Your task to perform on an android device: toggle data saver in the chrome app Image 0: 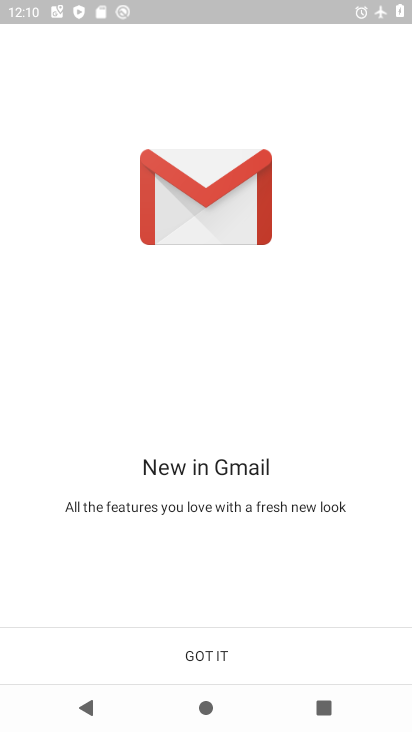
Step 0: press home button
Your task to perform on an android device: toggle data saver in the chrome app Image 1: 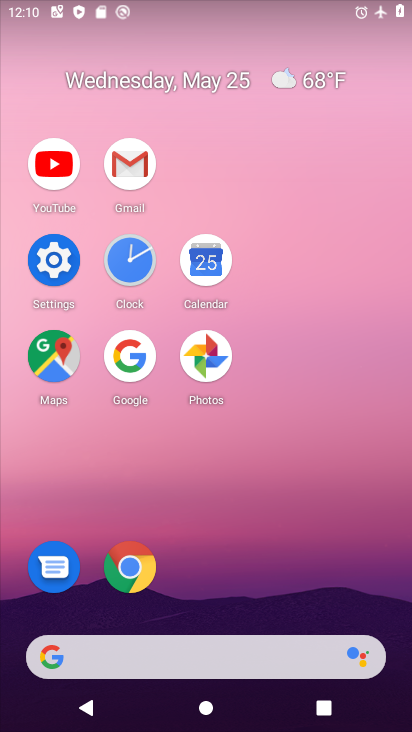
Step 1: click (145, 569)
Your task to perform on an android device: toggle data saver in the chrome app Image 2: 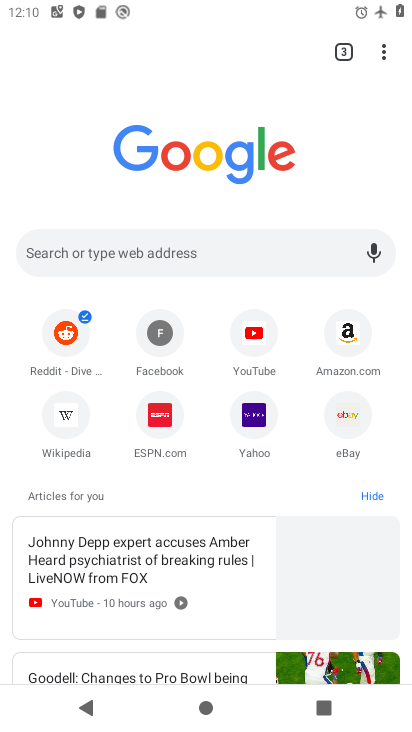
Step 2: click (373, 61)
Your task to perform on an android device: toggle data saver in the chrome app Image 3: 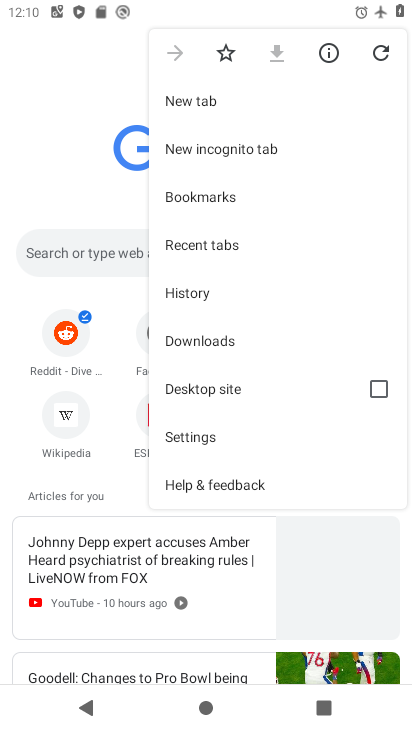
Step 3: click (216, 440)
Your task to perform on an android device: toggle data saver in the chrome app Image 4: 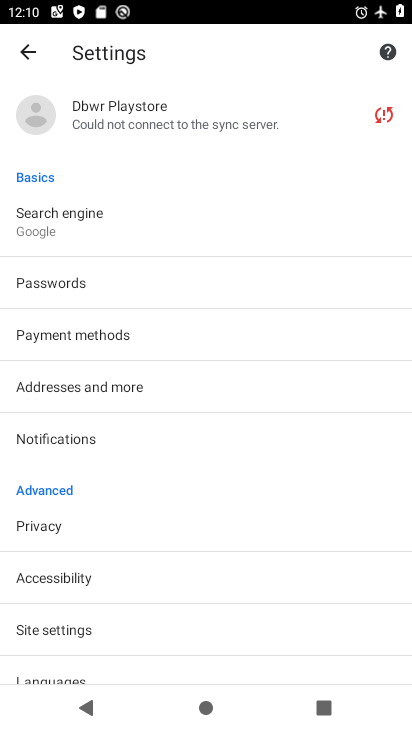
Step 4: drag from (106, 555) to (172, 186)
Your task to perform on an android device: toggle data saver in the chrome app Image 5: 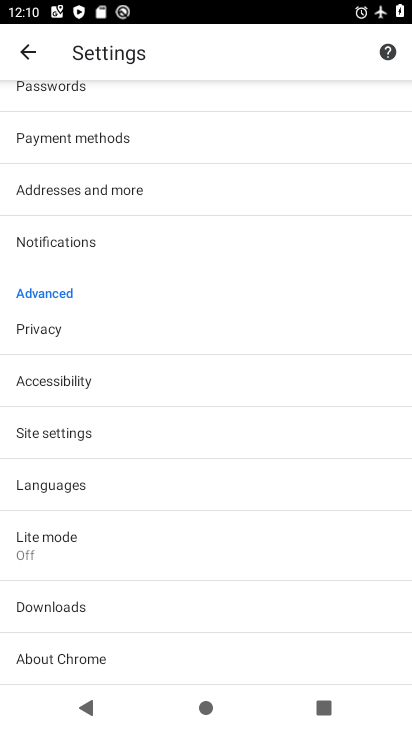
Step 5: click (118, 532)
Your task to perform on an android device: toggle data saver in the chrome app Image 6: 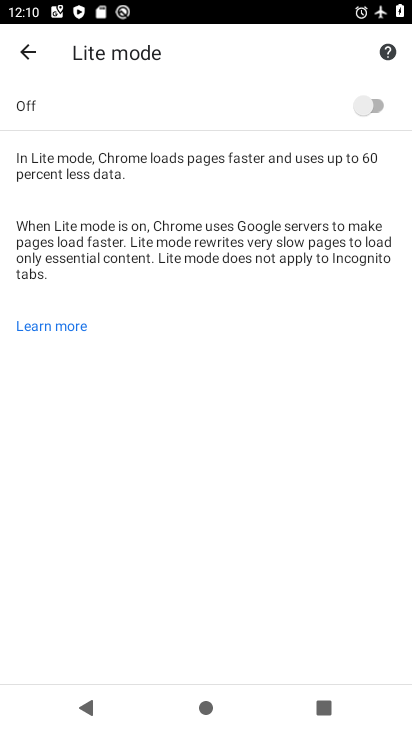
Step 6: click (355, 106)
Your task to perform on an android device: toggle data saver in the chrome app Image 7: 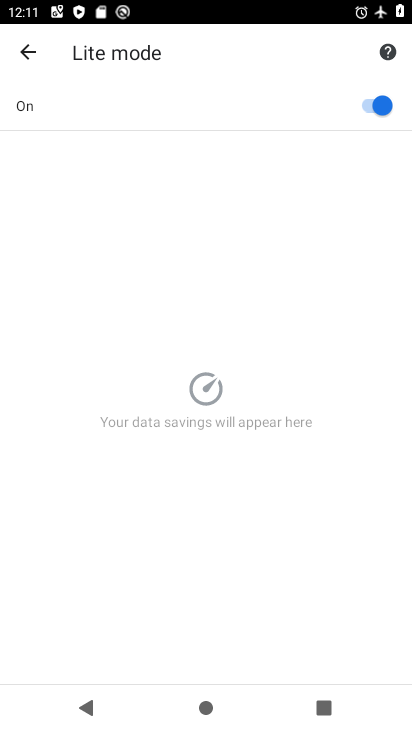
Step 7: task complete